Your task to perform on an android device: make emails show in primary in the gmail app Image 0: 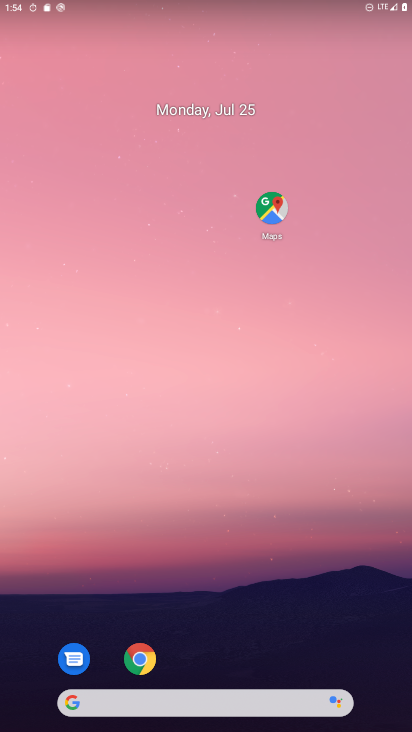
Step 0: drag from (61, 635) to (236, 97)
Your task to perform on an android device: make emails show in primary in the gmail app Image 1: 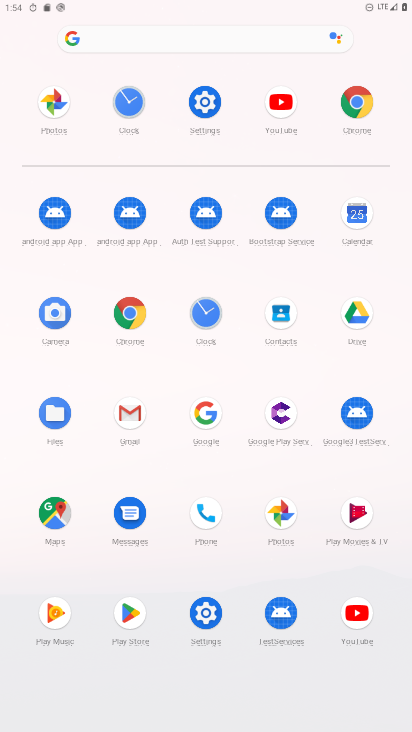
Step 1: click (137, 415)
Your task to perform on an android device: make emails show in primary in the gmail app Image 2: 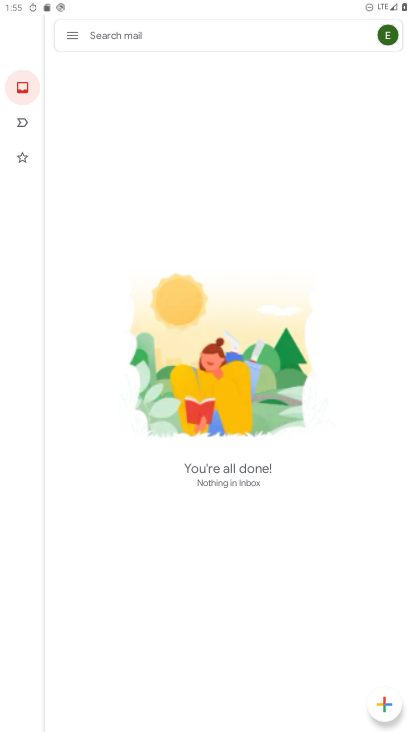
Step 2: press home button
Your task to perform on an android device: make emails show in primary in the gmail app Image 3: 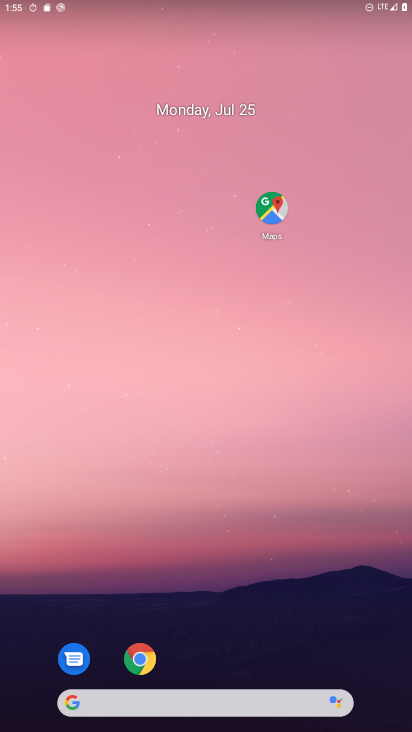
Step 3: drag from (160, 404) to (311, 59)
Your task to perform on an android device: make emails show in primary in the gmail app Image 4: 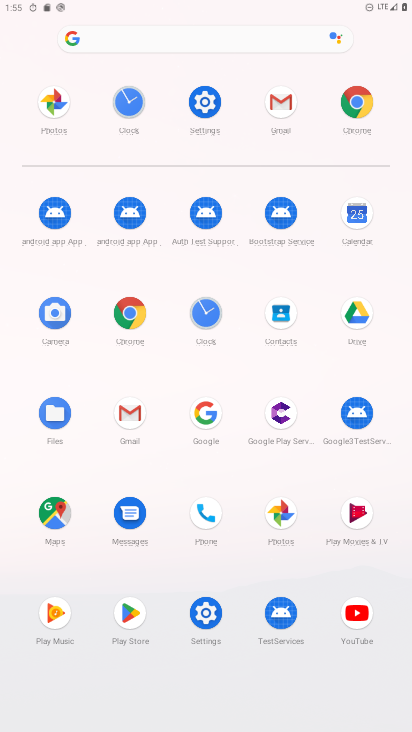
Step 4: click (132, 417)
Your task to perform on an android device: make emails show in primary in the gmail app Image 5: 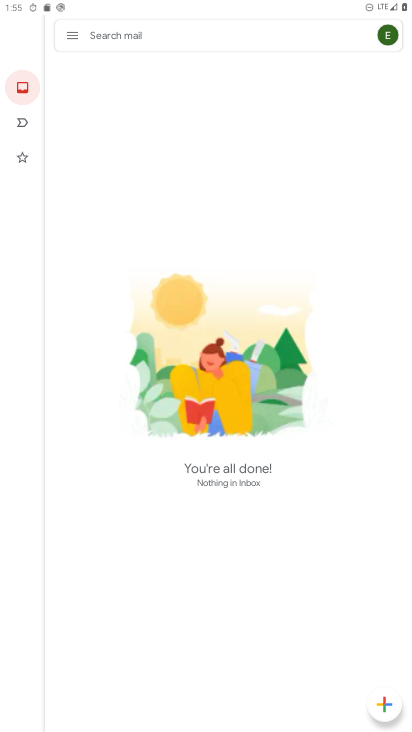
Step 5: click (75, 40)
Your task to perform on an android device: make emails show in primary in the gmail app Image 6: 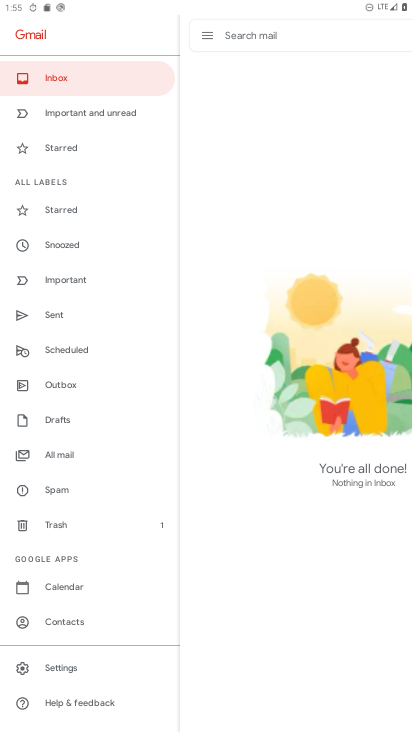
Step 6: click (75, 79)
Your task to perform on an android device: make emails show in primary in the gmail app Image 7: 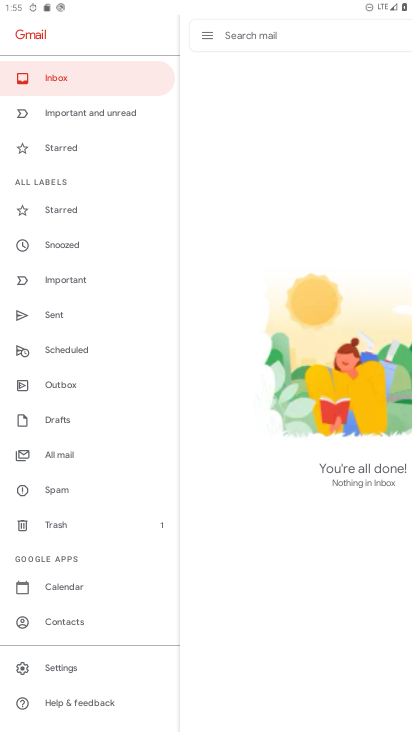
Step 7: click (85, 90)
Your task to perform on an android device: make emails show in primary in the gmail app Image 8: 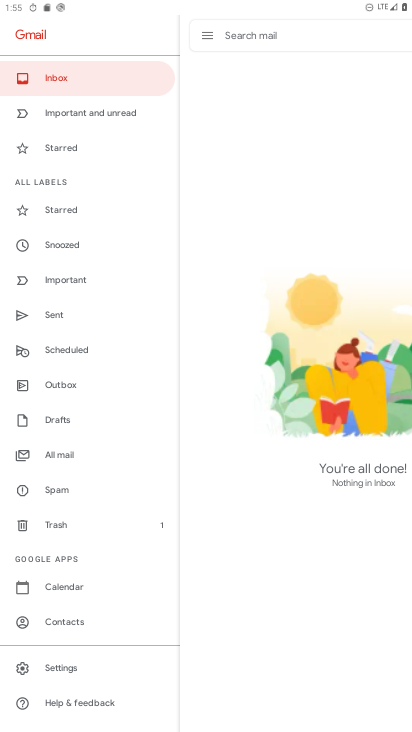
Step 8: task complete